Your task to perform on an android device: search for starred emails in the gmail app Image 0: 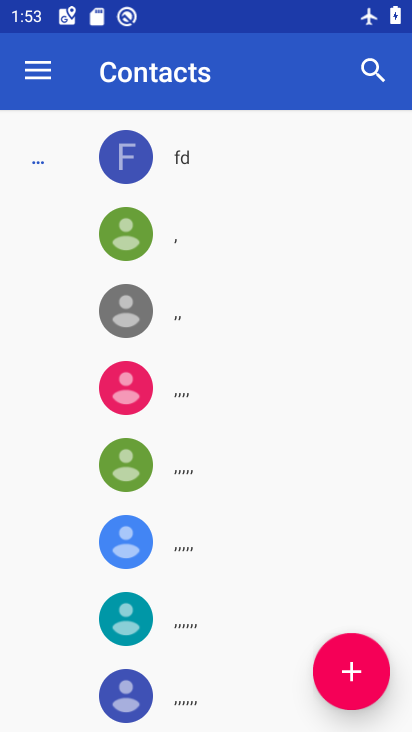
Step 0: press home button
Your task to perform on an android device: search for starred emails in the gmail app Image 1: 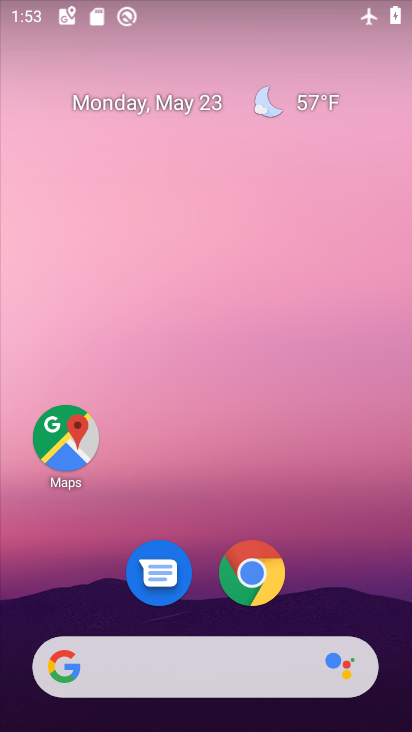
Step 1: drag from (305, 583) to (236, 177)
Your task to perform on an android device: search for starred emails in the gmail app Image 2: 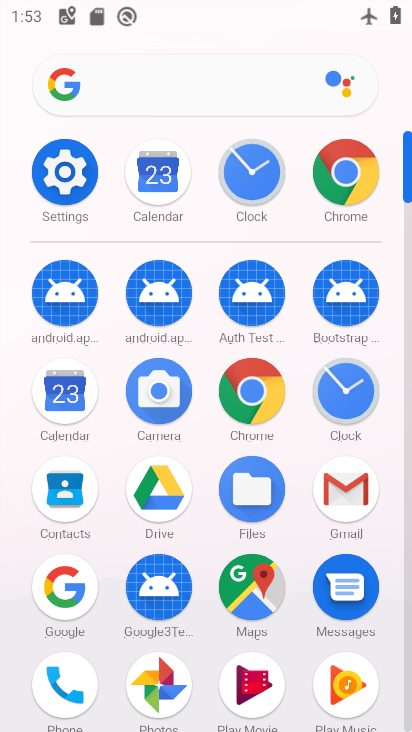
Step 2: click (344, 491)
Your task to perform on an android device: search for starred emails in the gmail app Image 3: 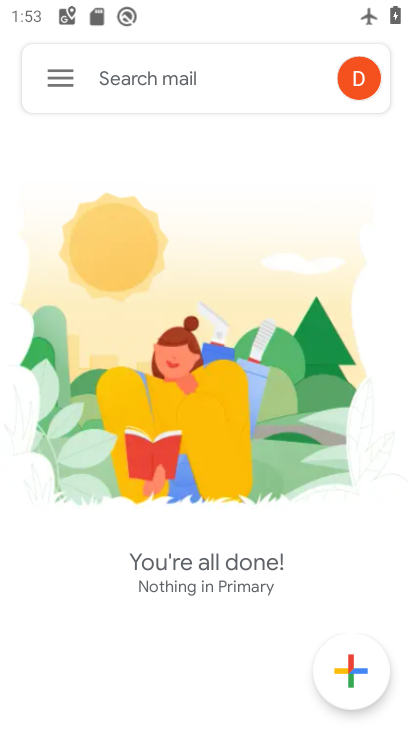
Step 3: click (65, 86)
Your task to perform on an android device: search for starred emails in the gmail app Image 4: 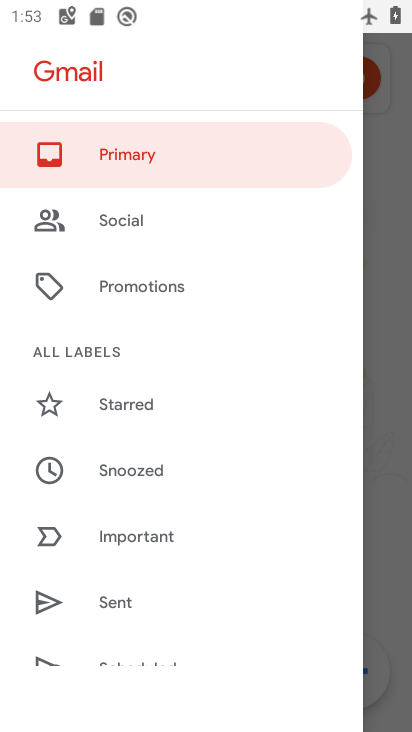
Step 4: click (126, 400)
Your task to perform on an android device: search for starred emails in the gmail app Image 5: 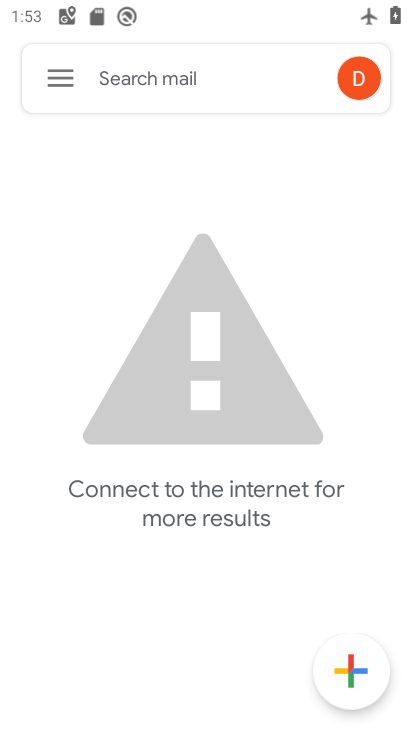
Step 5: drag from (258, 49) to (317, 574)
Your task to perform on an android device: search for starred emails in the gmail app Image 6: 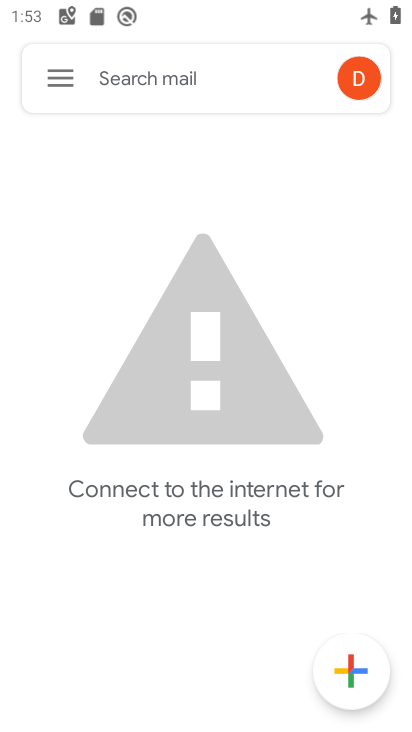
Step 6: drag from (212, 1) to (222, 656)
Your task to perform on an android device: search for starred emails in the gmail app Image 7: 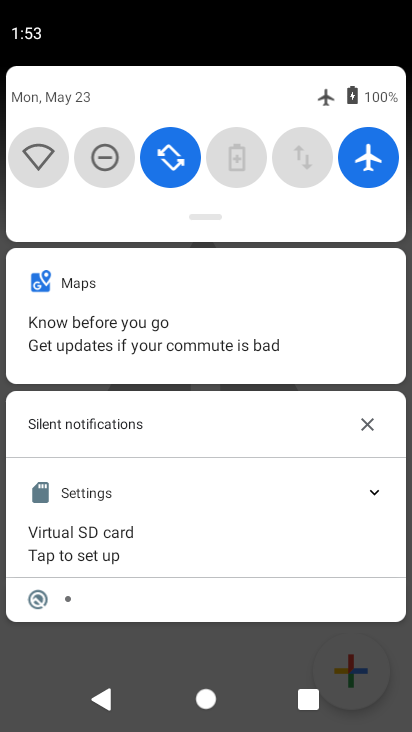
Step 7: click (359, 155)
Your task to perform on an android device: search for starred emails in the gmail app Image 8: 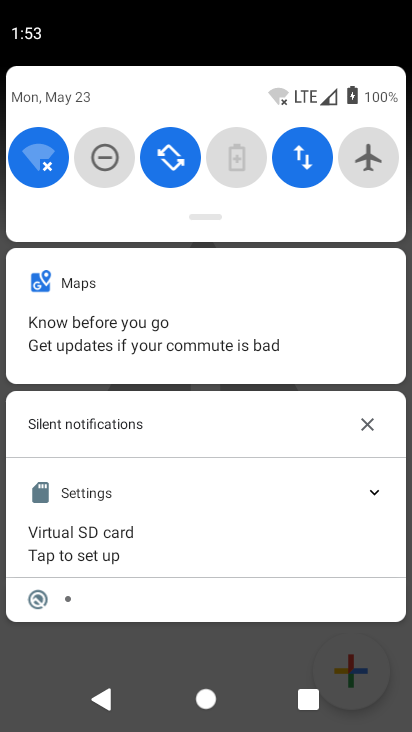
Step 8: press back button
Your task to perform on an android device: search for starred emails in the gmail app Image 9: 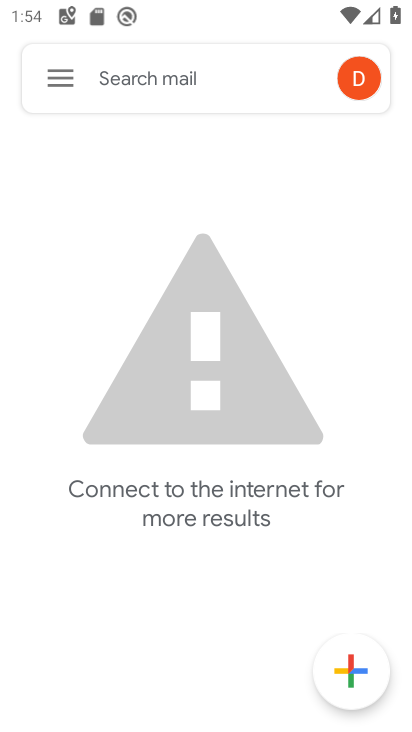
Step 9: click (55, 71)
Your task to perform on an android device: search for starred emails in the gmail app Image 10: 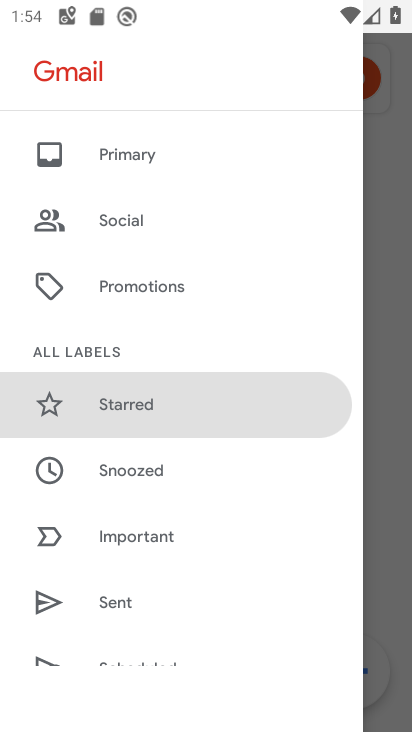
Step 10: click (127, 402)
Your task to perform on an android device: search for starred emails in the gmail app Image 11: 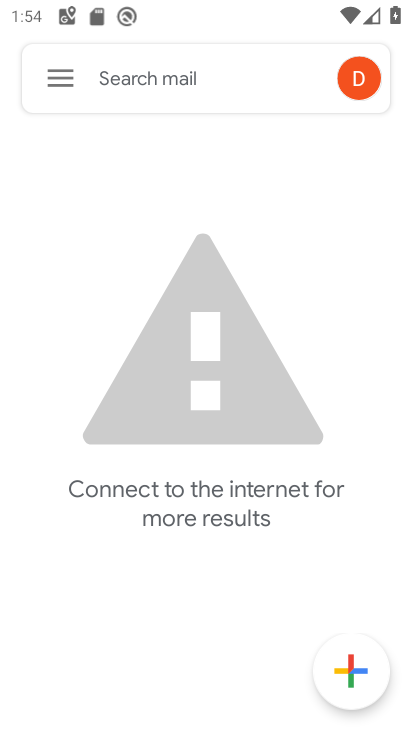
Step 11: task complete